Your task to perform on an android device: open chrome and create a bookmark for the current page Image 0: 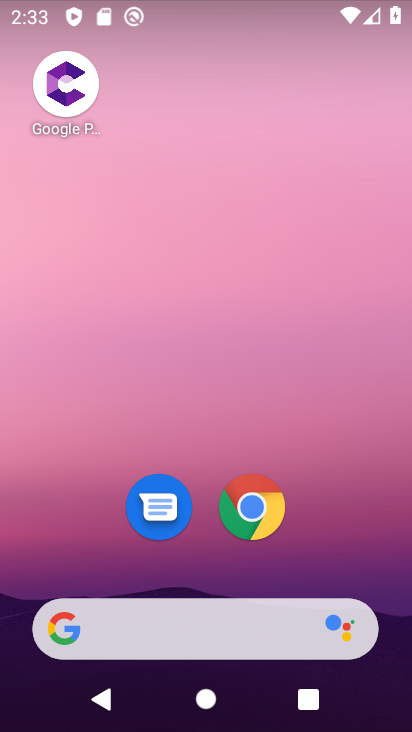
Step 0: drag from (356, 556) to (358, 229)
Your task to perform on an android device: open chrome and create a bookmark for the current page Image 1: 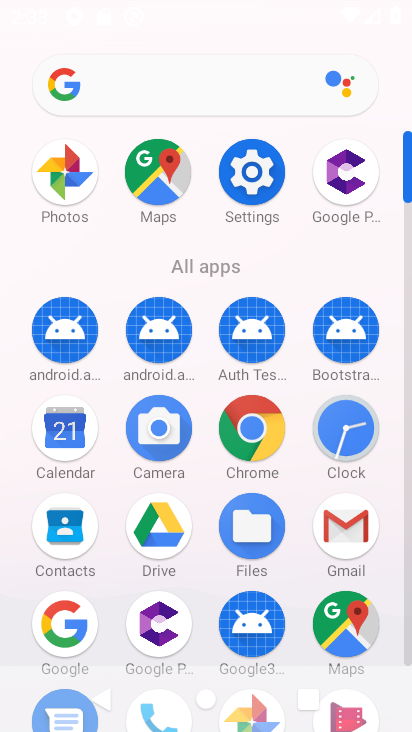
Step 1: click (250, 445)
Your task to perform on an android device: open chrome and create a bookmark for the current page Image 2: 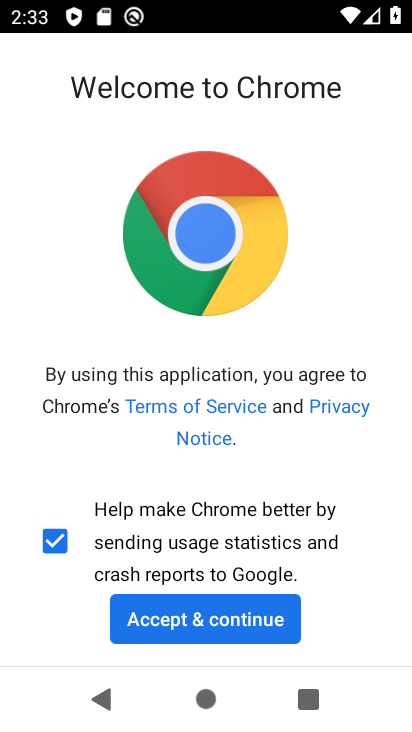
Step 2: click (210, 625)
Your task to perform on an android device: open chrome and create a bookmark for the current page Image 3: 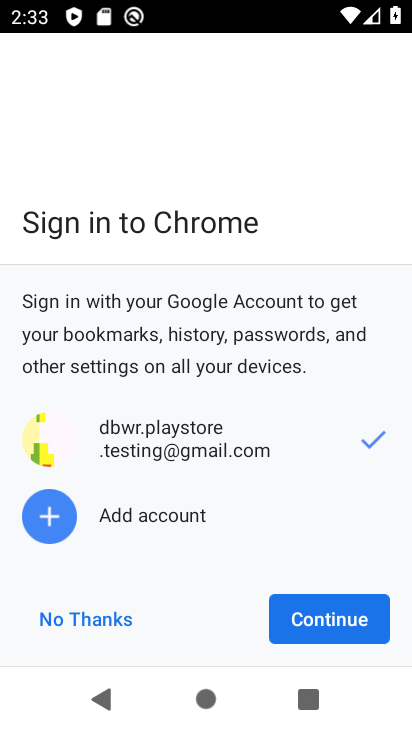
Step 3: click (290, 611)
Your task to perform on an android device: open chrome and create a bookmark for the current page Image 4: 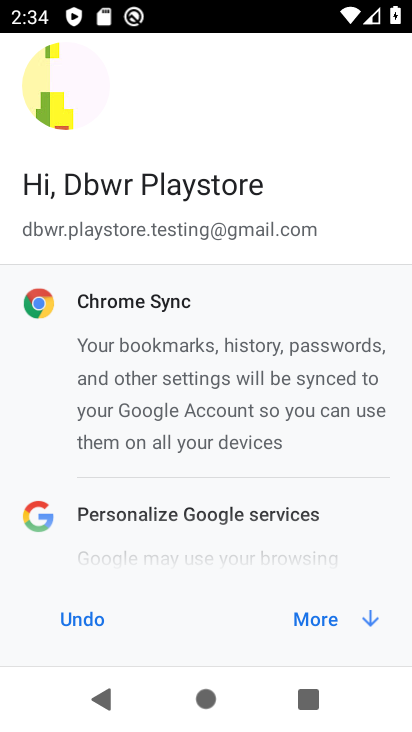
Step 4: click (290, 618)
Your task to perform on an android device: open chrome and create a bookmark for the current page Image 5: 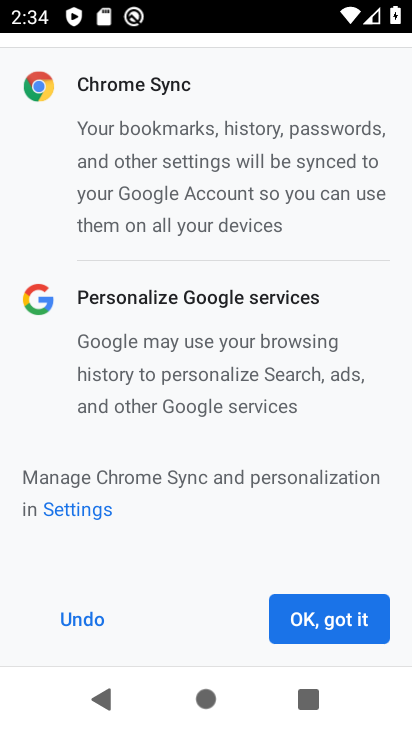
Step 5: click (290, 618)
Your task to perform on an android device: open chrome and create a bookmark for the current page Image 6: 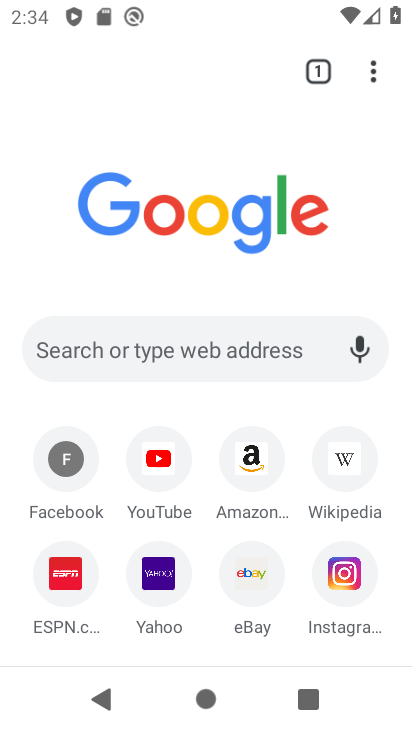
Step 6: click (203, 355)
Your task to perform on an android device: open chrome and create a bookmark for the current page Image 7: 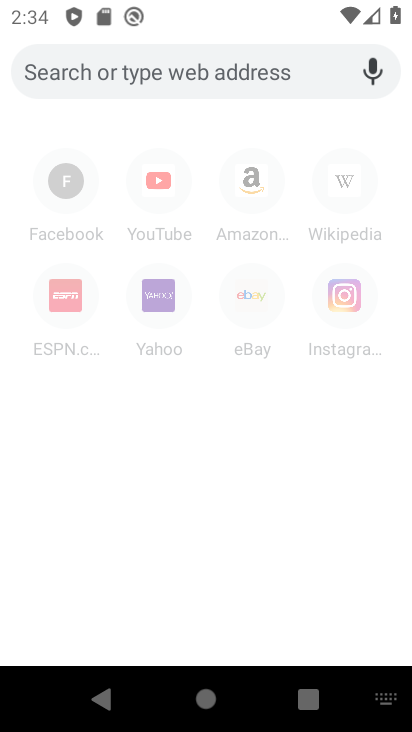
Step 7: type "cartoon network"
Your task to perform on an android device: open chrome and create a bookmark for the current page Image 8: 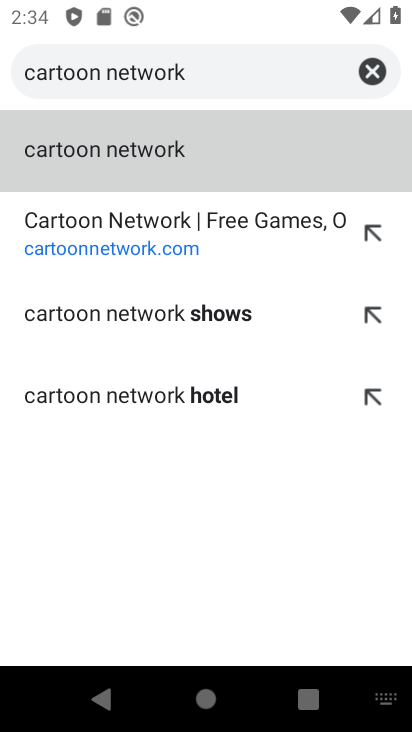
Step 8: click (155, 148)
Your task to perform on an android device: open chrome and create a bookmark for the current page Image 9: 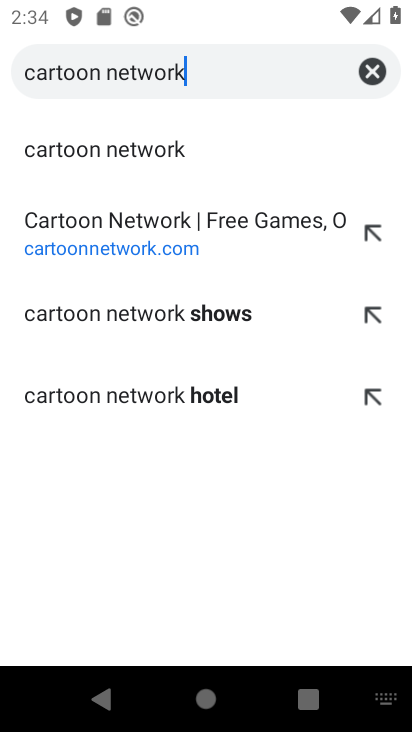
Step 9: click (155, 148)
Your task to perform on an android device: open chrome and create a bookmark for the current page Image 10: 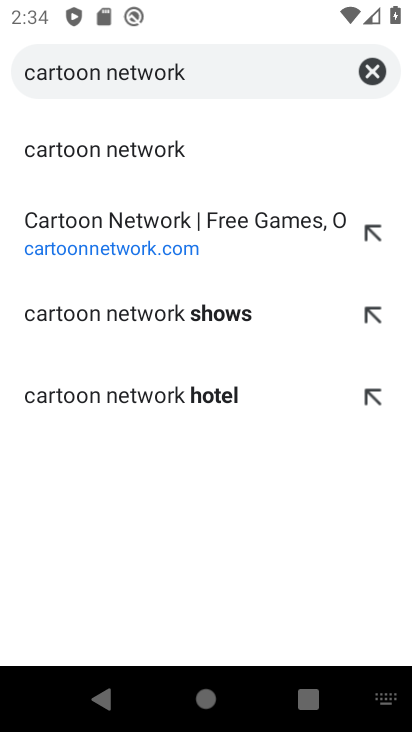
Step 10: click (153, 147)
Your task to perform on an android device: open chrome and create a bookmark for the current page Image 11: 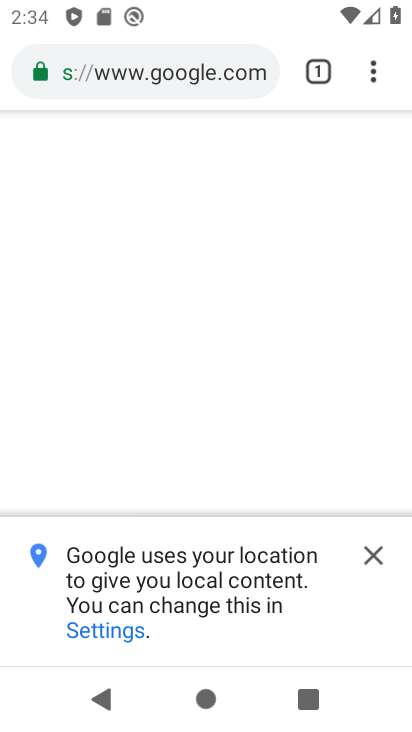
Step 11: click (356, 555)
Your task to perform on an android device: open chrome and create a bookmark for the current page Image 12: 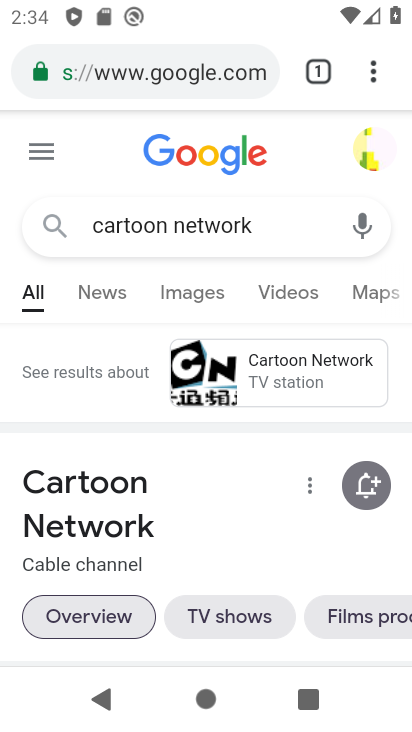
Step 12: drag from (180, 458) to (197, 198)
Your task to perform on an android device: open chrome and create a bookmark for the current page Image 13: 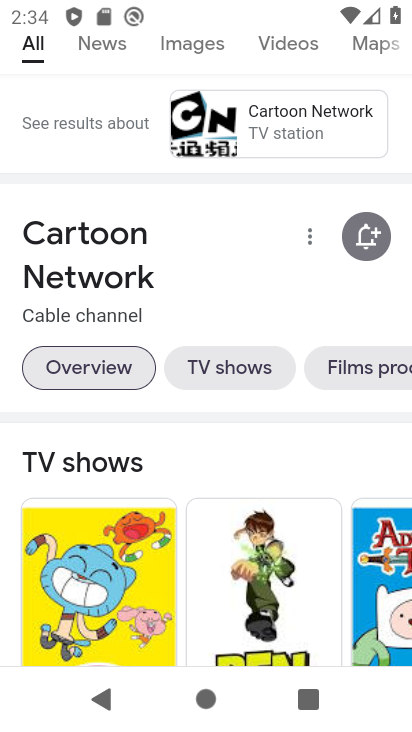
Step 13: drag from (162, 604) to (159, 242)
Your task to perform on an android device: open chrome and create a bookmark for the current page Image 14: 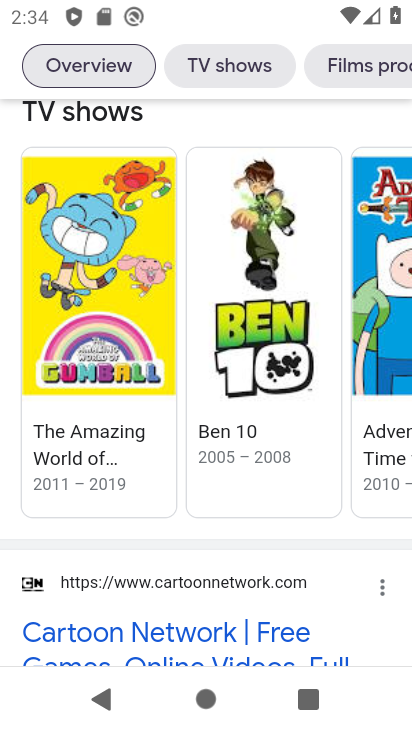
Step 14: drag from (173, 577) to (168, 302)
Your task to perform on an android device: open chrome and create a bookmark for the current page Image 15: 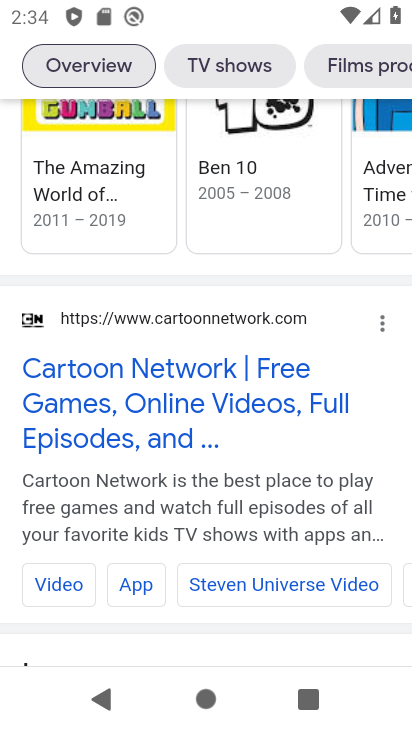
Step 15: click (137, 409)
Your task to perform on an android device: open chrome and create a bookmark for the current page Image 16: 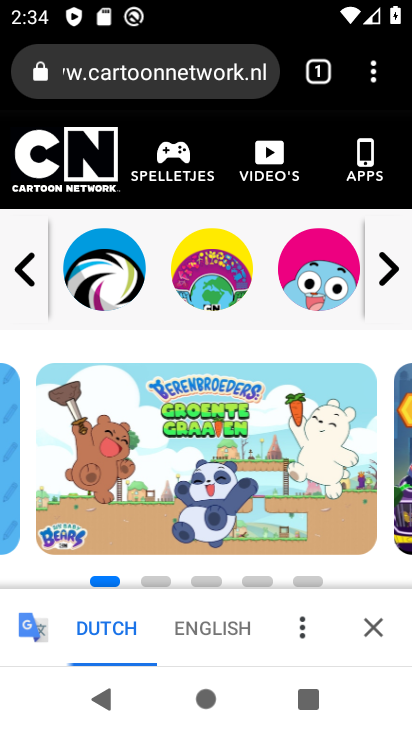
Step 16: task complete